Your task to perform on an android device: When is my next meeting? Image 0: 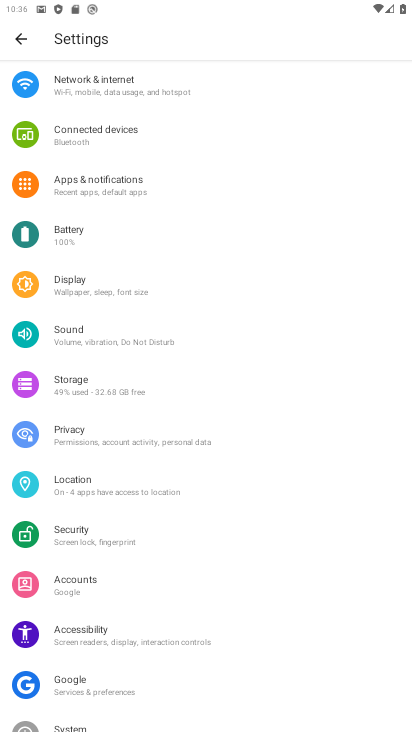
Step 0: press home button
Your task to perform on an android device: When is my next meeting? Image 1: 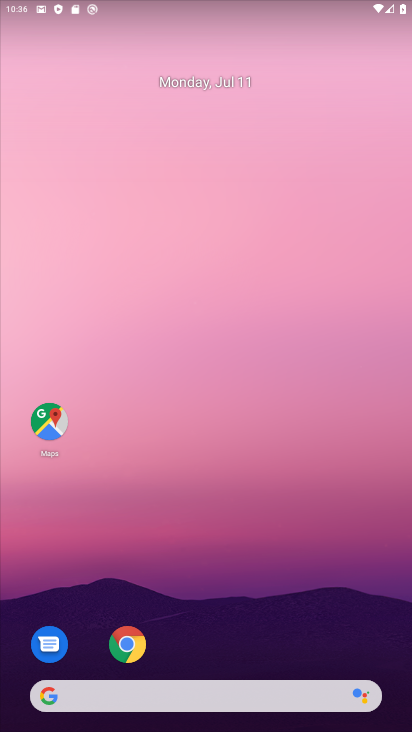
Step 1: drag from (282, 638) to (291, 166)
Your task to perform on an android device: When is my next meeting? Image 2: 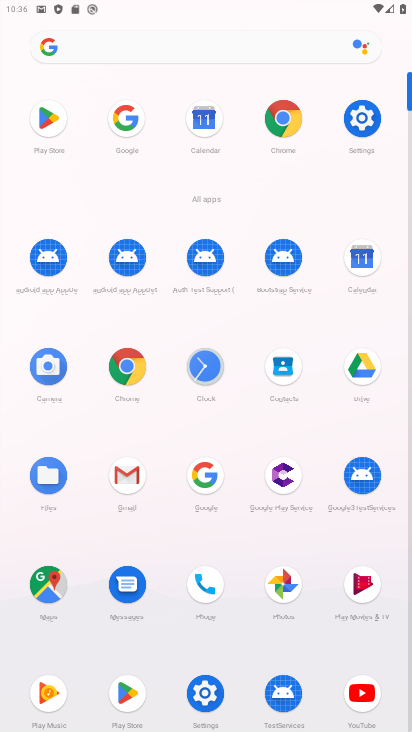
Step 2: click (354, 266)
Your task to perform on an android device: When is my next meeting? Image 3: 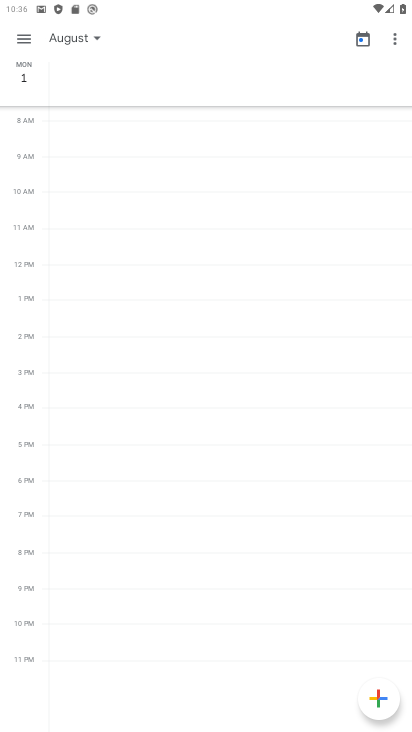
Step 3: click (22, 41)
Your task to perform on an android device: When is my next meeting? Image 4: 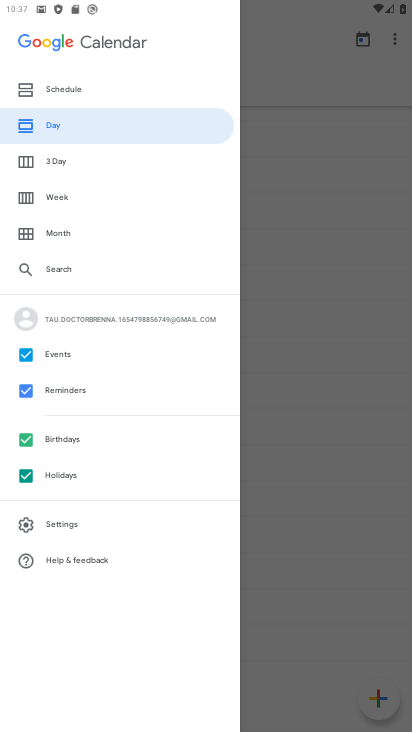
Step 4: click (74, 234)
Your task to perform on an android device: When is my next meeting? Image 5: 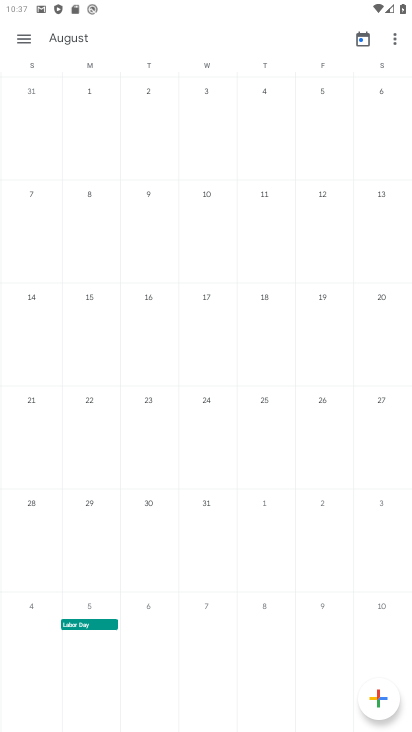
Step 5: drag from (78, 401) to (354, 505)
Your task to perform on an android device: When is my next meeting? Image 6: 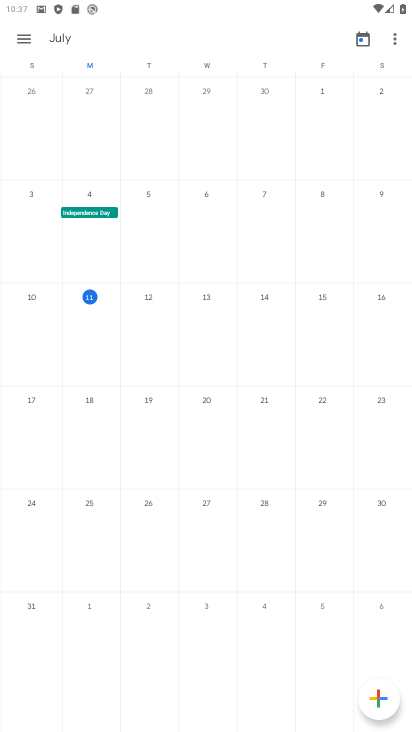
Step 6: click (144, 295)
Your task to perform on an android device: When is my next meeting? Image 7: 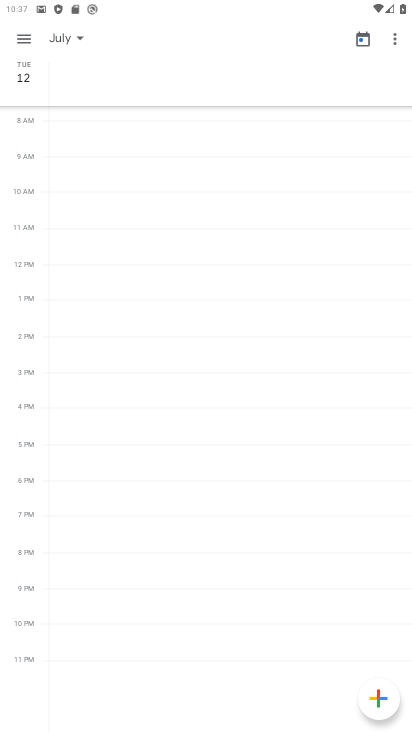
Step 7: task complete